Your task to perform on an android device: open sync settings in chrome Image 0: 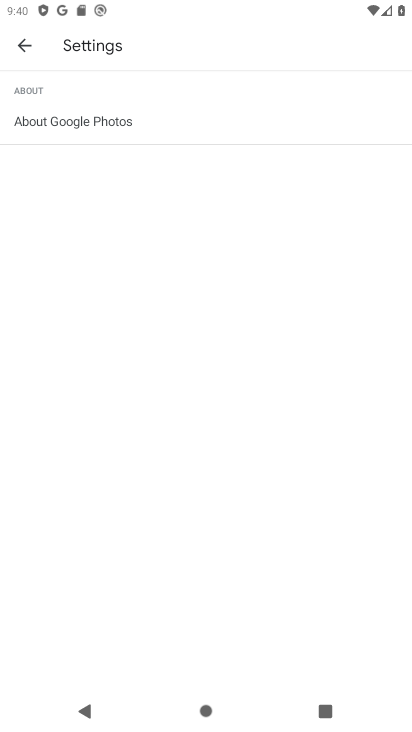
Step 0: press home button
Your task to perform on an android device: open sync settings in chrome Image 1: 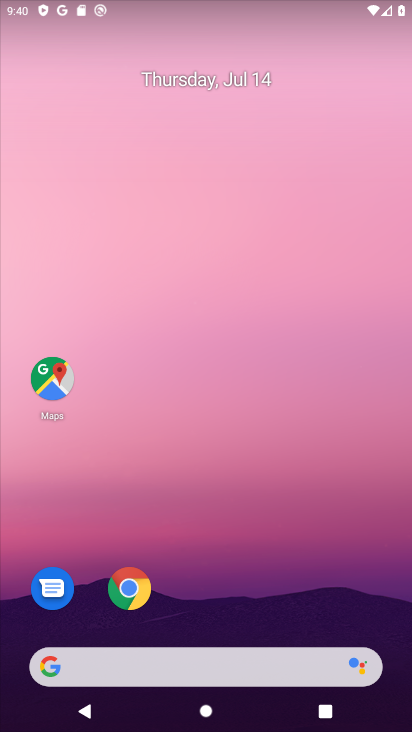
Step 1: click (137, 590)
Your task to perform on an android device: open sync settings in chrome Image 2: 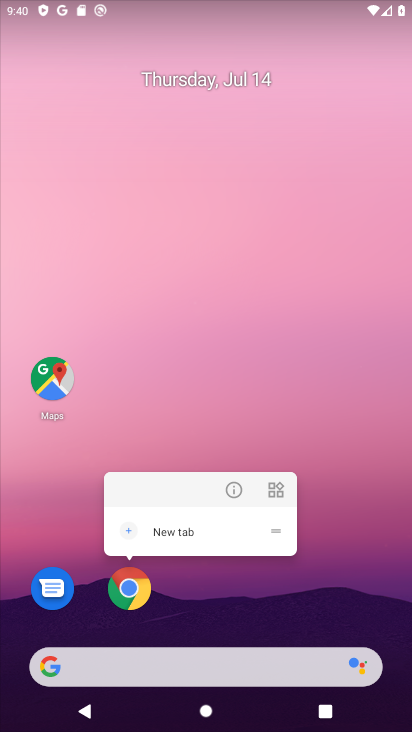
Step 2: click (126, 599)
Your task to perform on an android device: open sync settings in chrome Image 3: 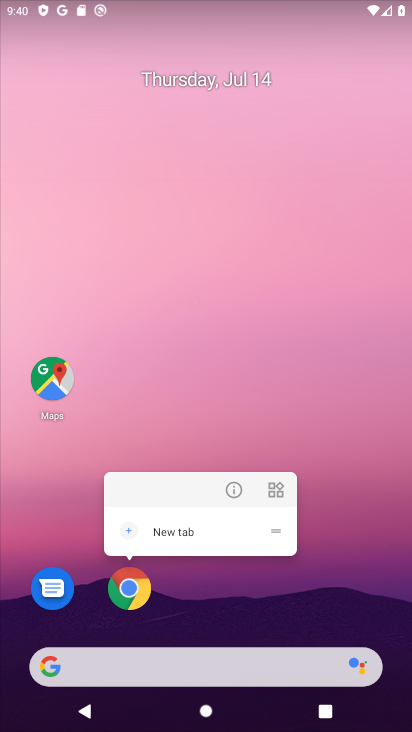
Step 3: click (132, 590)
Your task to perform on an android device: open sync settings in chrome Image 4: 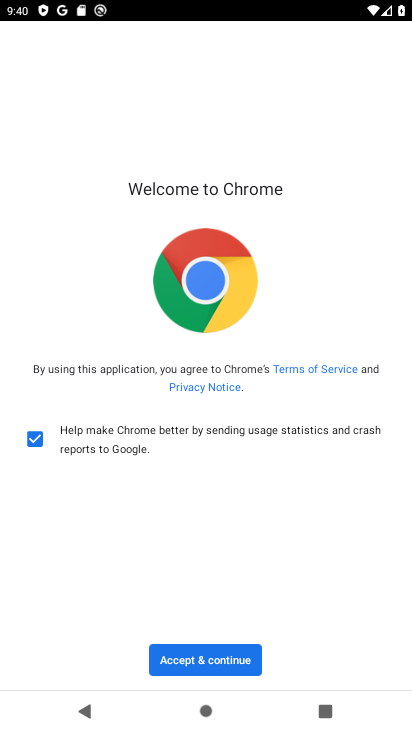
Step 4: click (207, 660)
Your task to perform on an android device: open sync settings in chrome Image 5: 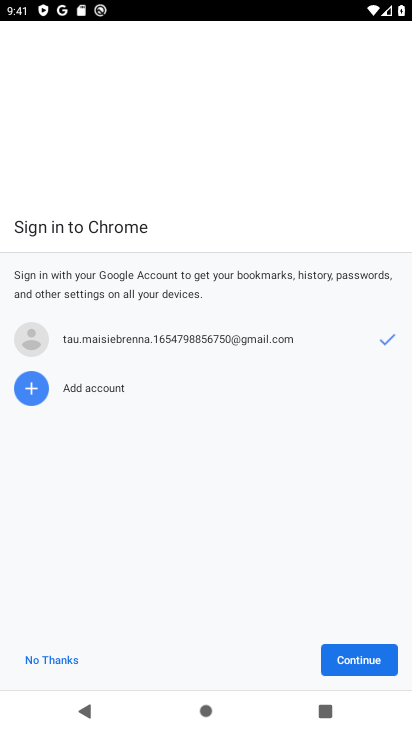
Step 5: click (347, 657)
Your task to perform on an android device: open sync settings in chrome Image 6: 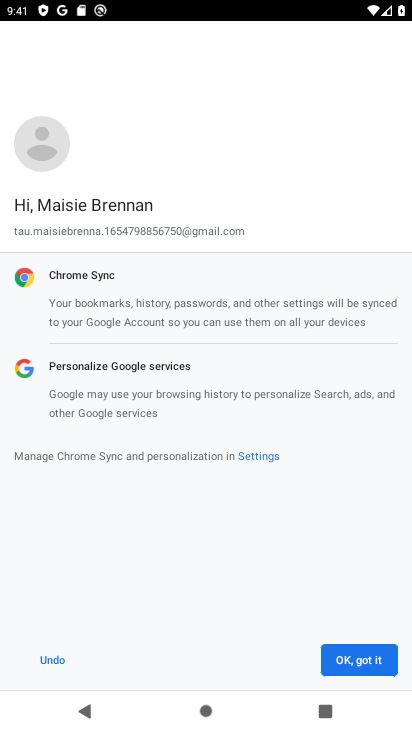
Step 6: click (339, 655)
Your task to perform on an android device: open sync settings in chrome Image 7: 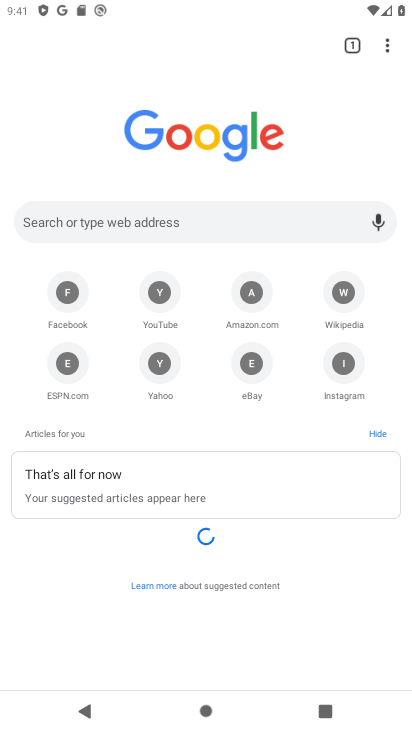
Step 7: drag from (389, 45) to (268, 386)
Your task to perform on an android device: open sync settings in chrome Image 8: 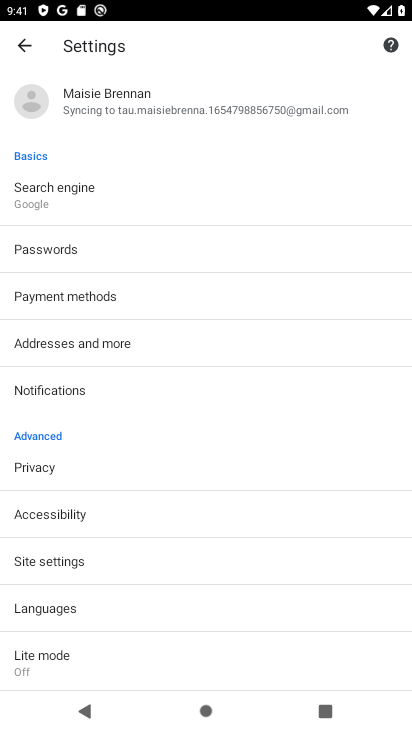
Step 8: click (164, 118)
Your task to perform on an android device: open sync settings in chrome Image 9: 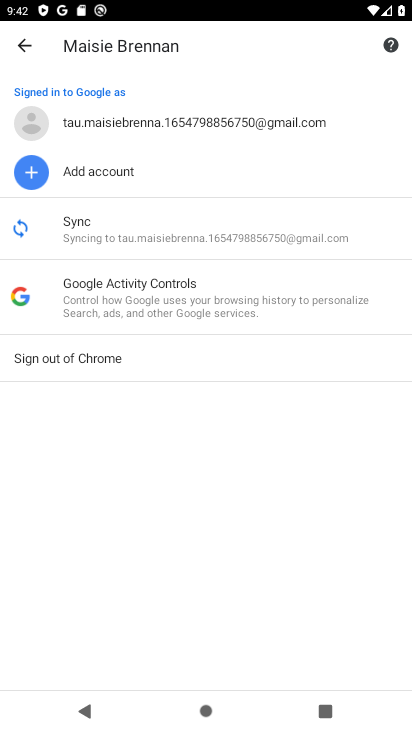
Step 9: task complete